Your task to perform on an android device: allow cookies in the chrome app Image 0: 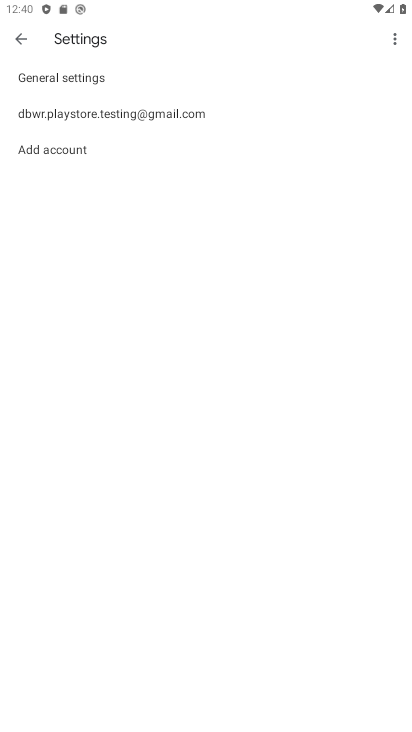
Step 0: press home button
Your task to perform on an android device: allow cookies in the chrome app Image 1: 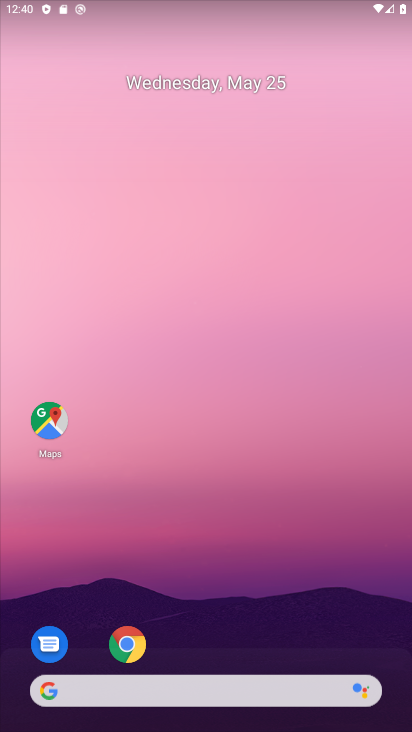
Step 1: click (125, 656)
Your task to perform on an android device: allow cookies in the chrome app Image 2: 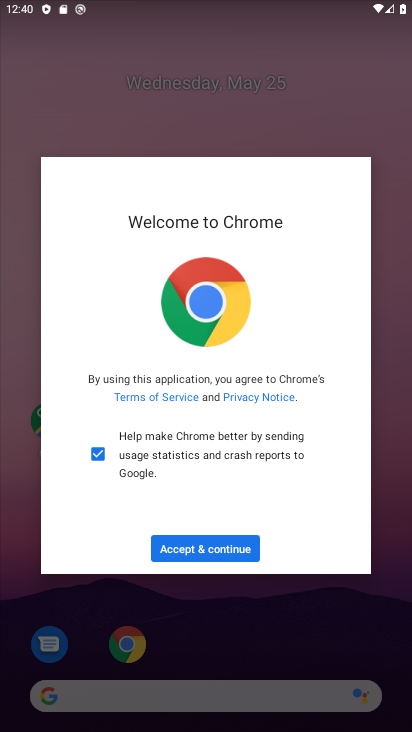
Step 2: click (214, 549)
Your task to perform on an android device: allow cookies in the chrome app Image 3: 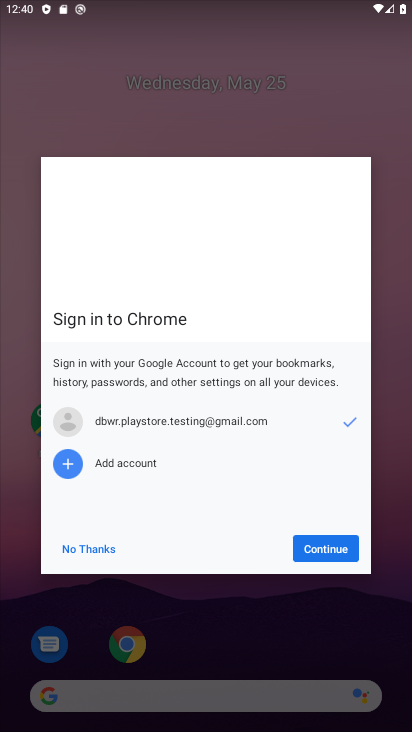
Step 3: click (325, 549)
Your task to perform on an android device: allow cookies in the chrome app Image 4: 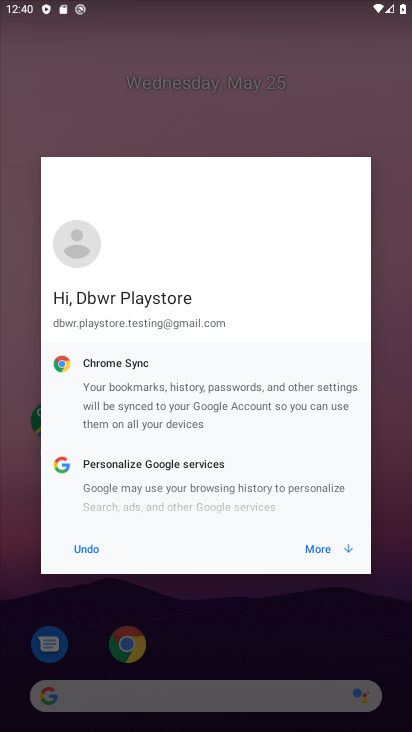
Step 4: click (326, 549)
Your task to perform on an android device: allow cookies in the chrome app Image 5: 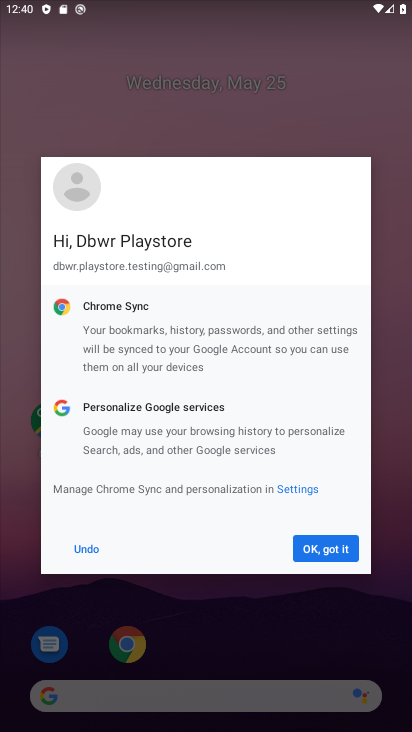
Step 5: click (326, 549)
Your task to perform on an android device: allow cookies in the chrome app Image 6: 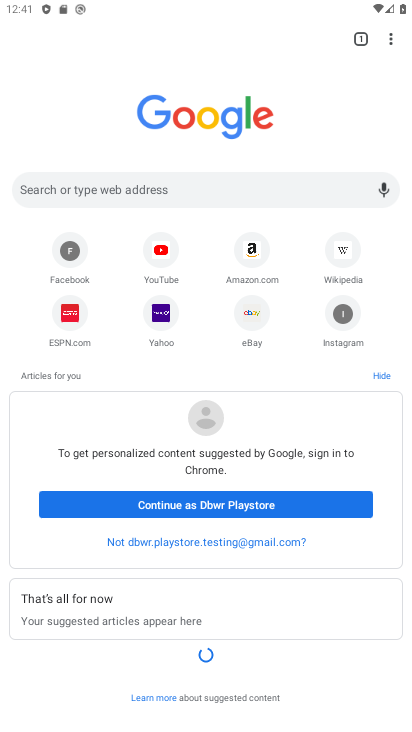
Step 6: click (384, 42)
Your task to perform on an android device: allow cookies in the chrome app Image 7: 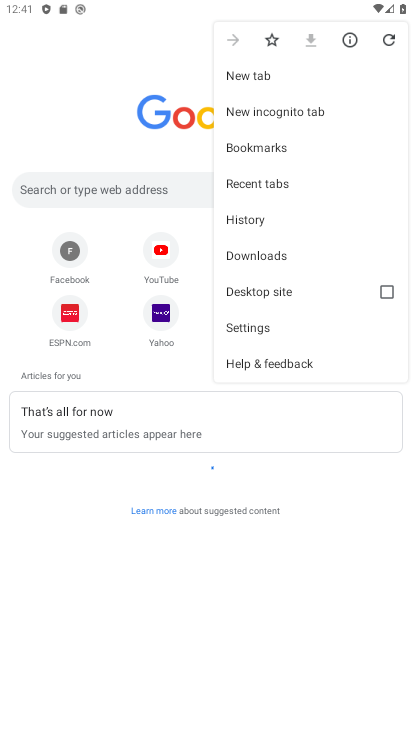
Step 7: click (276, 333)
Your task to perform on an android device: allow cookies in the chrome app Image 8: 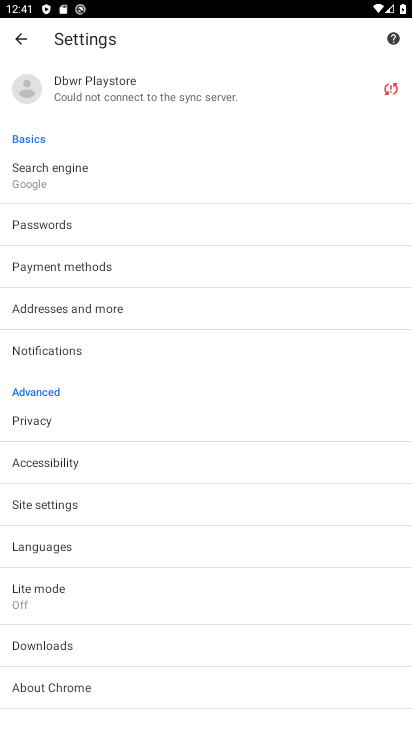
Step 8: click (63, 505)
Your task to perform on an android device: allow cookies in the chrome app Image 9: 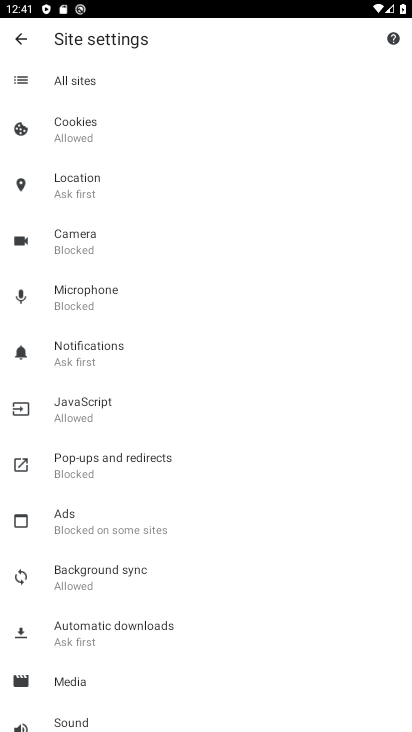
Step 9: click (74, 139)
Your task to perform on an android device: allow cookies in the chrome app Image 10: 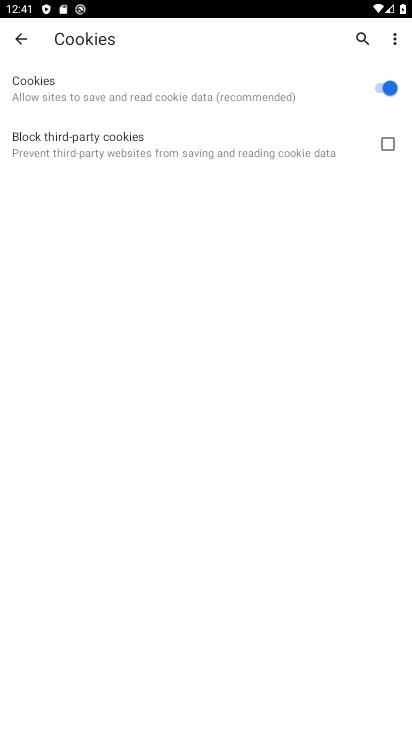
Step 10: task complete